Your task to perform on an android device: Show me popular videos on Youtube Image 0: 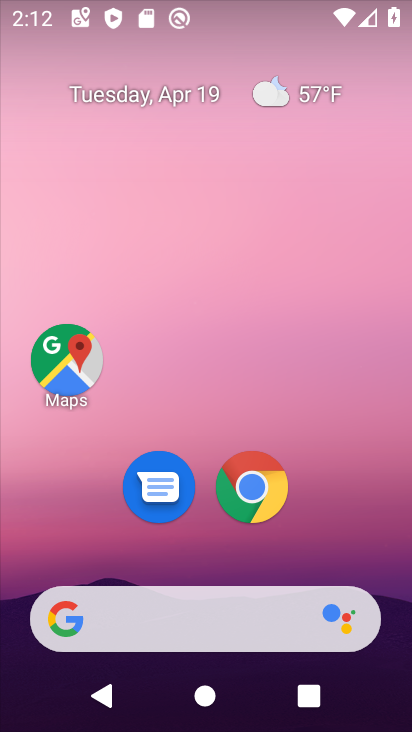
Step 0: drag from (159, 545) to (227, 3)
Your task to perform on an android device: Show me popular videos on Youtube Image 1: 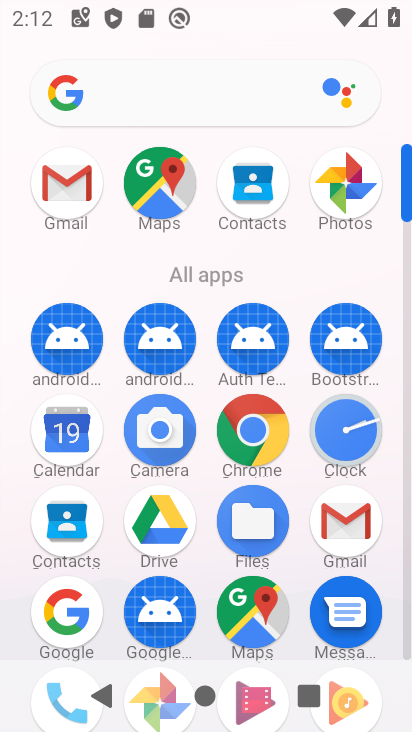
Step 1: drag from (126, 567) to (187, 8)
Your task to perform on an android device: Show me popular videos on Youtube Image 2: 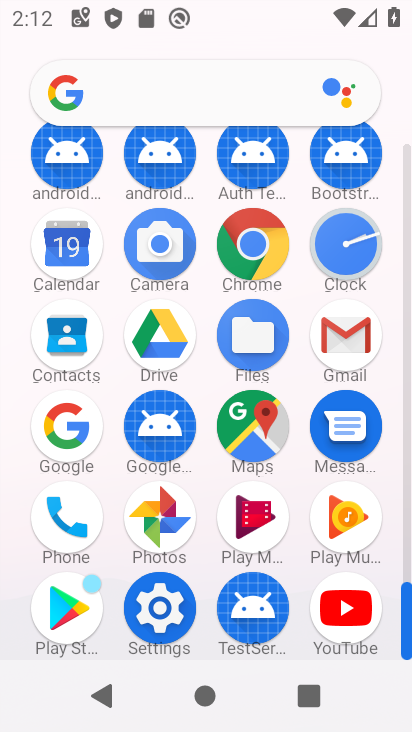
Step 2: click (346, 628)
Your task to perform on an android device: Show me popular videos on Youtube Image 3: 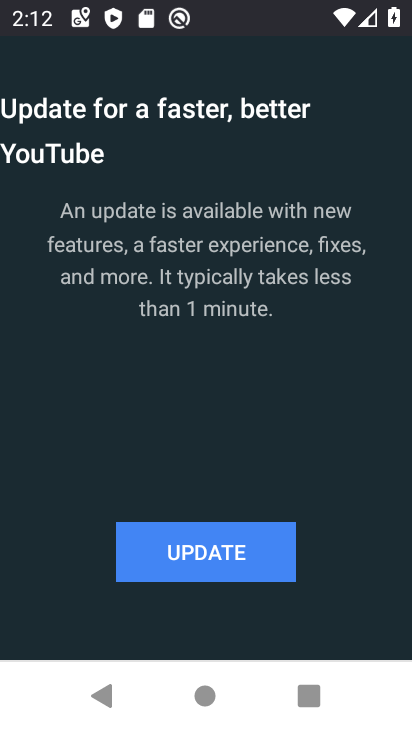
Step 3: click (238, 564)
Your task to perform on an android device: Show me popular videos on Youtube Image 4: 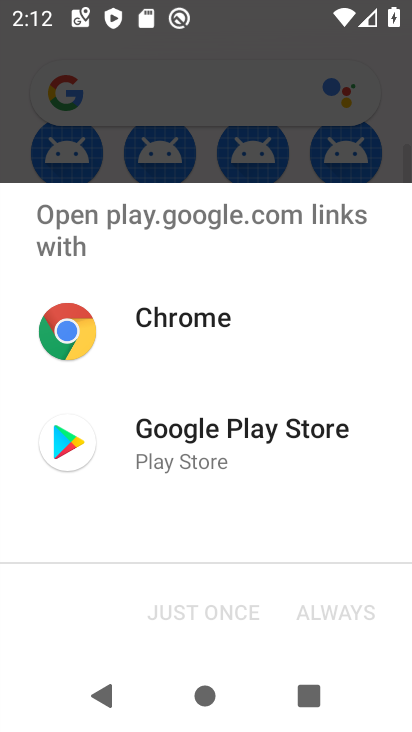
Step 4: click (198, 421)
Your task to perform on an android device: Show me popular videos on Youtube Image 5: 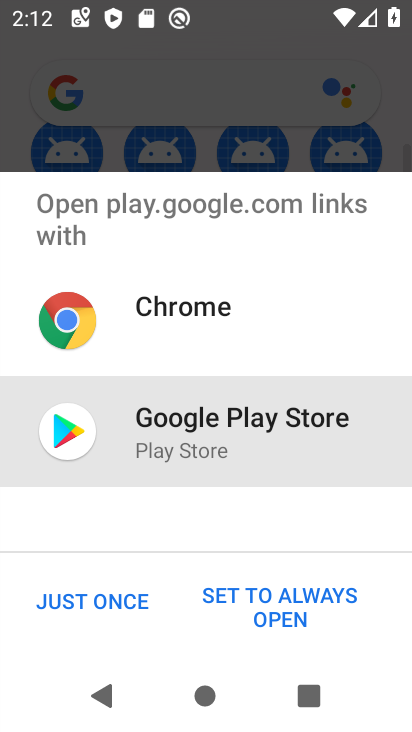
Step 5: click (118, 607)
Your task to perform on an android device: Show me popular videos on Youtube Image 6: 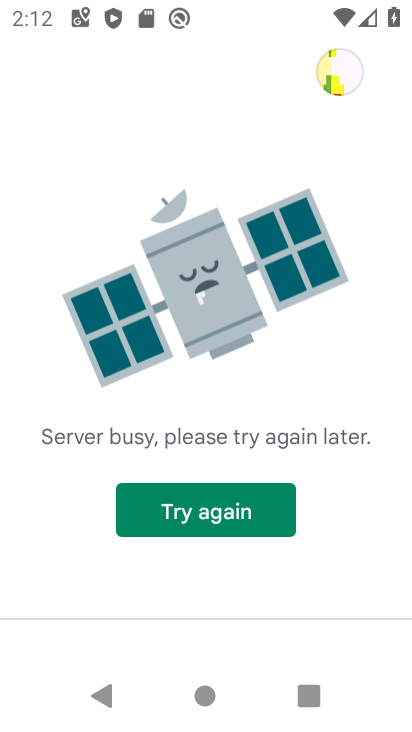
Step 6: task complete